Your task to perform on an android device: open app "Google News" (install if not already installed) Image 0: 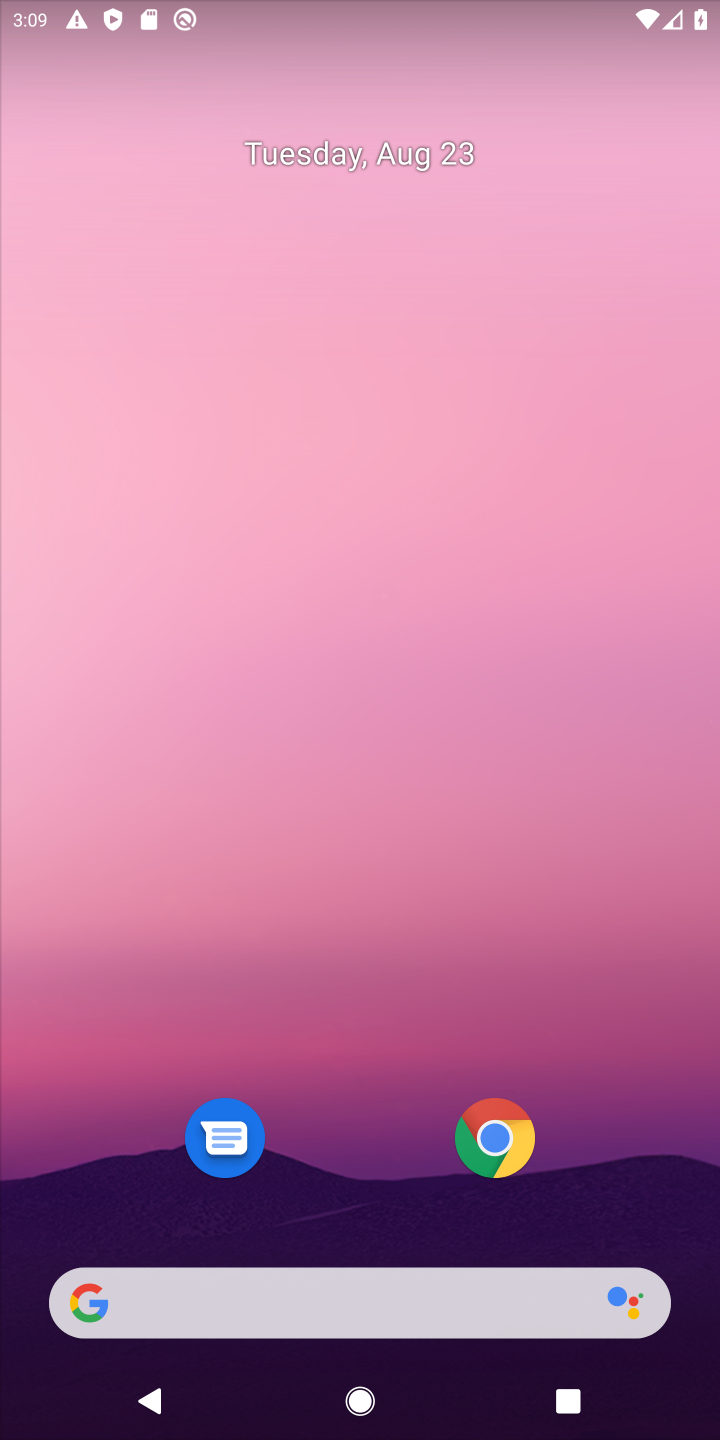
Step 0: drag from (383, 1330) to (531, 62)
Your task to perform on an android device: open app "Google News" (install if not already installed) Image 1: 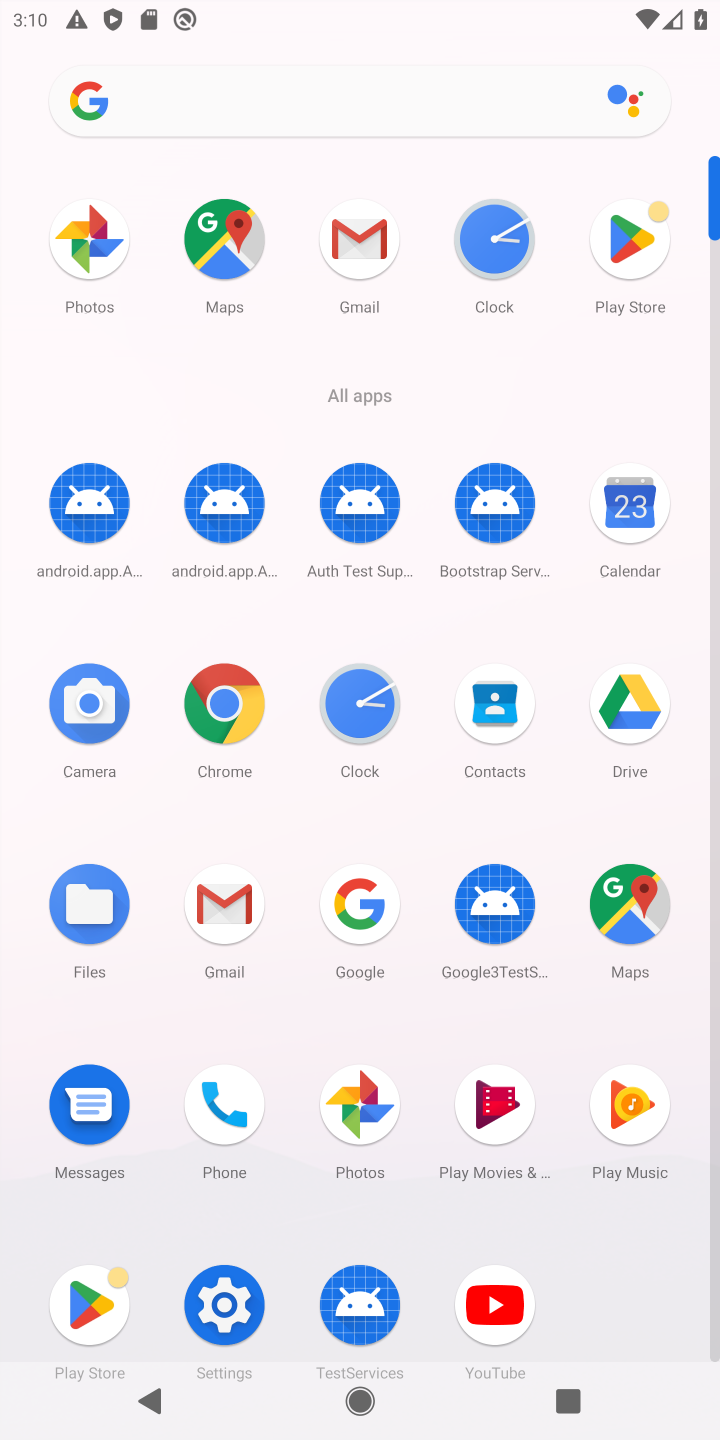
Step 1: click (625, 258)
Your task to perform on an android device: open app "Google News" (install if not already installed) Image 2: 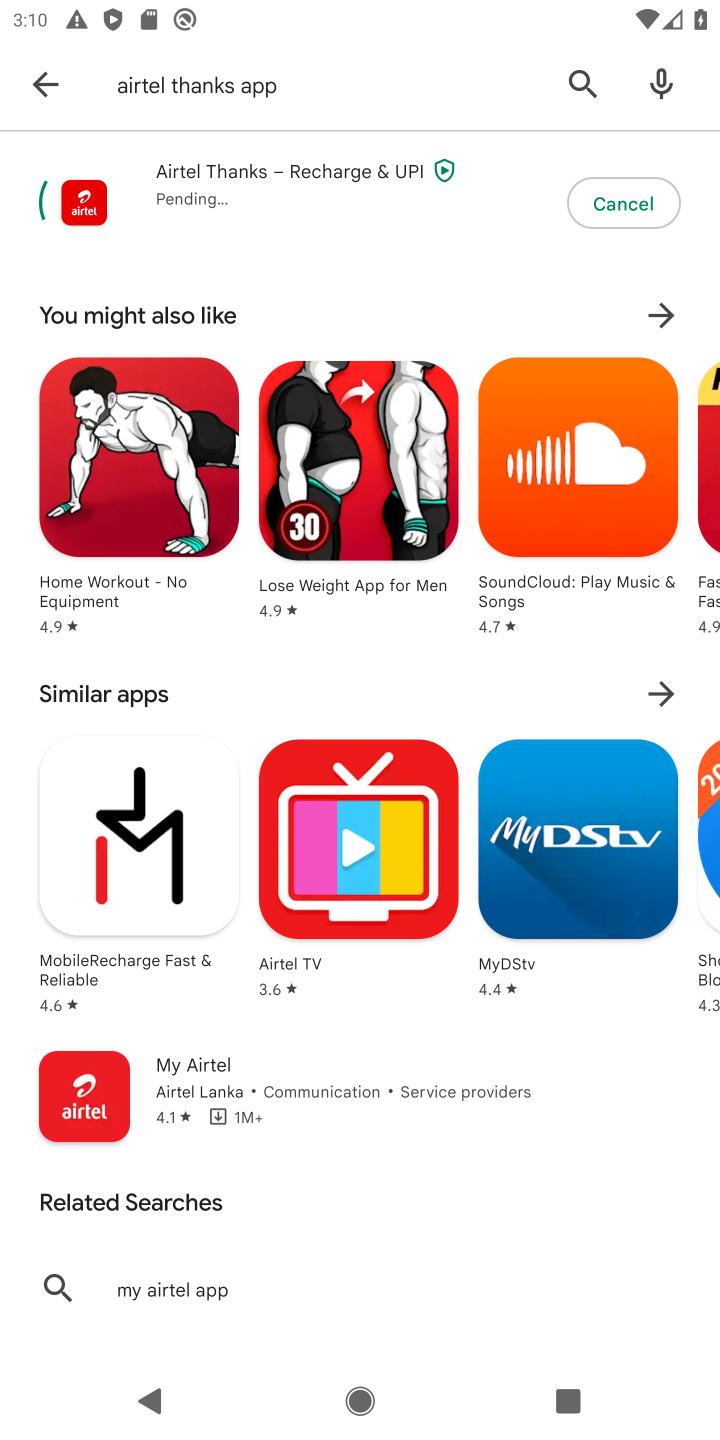
Step 2: press back button
Your task to perform on an android device: open app "Google News" (install if not already installed) Image 3: 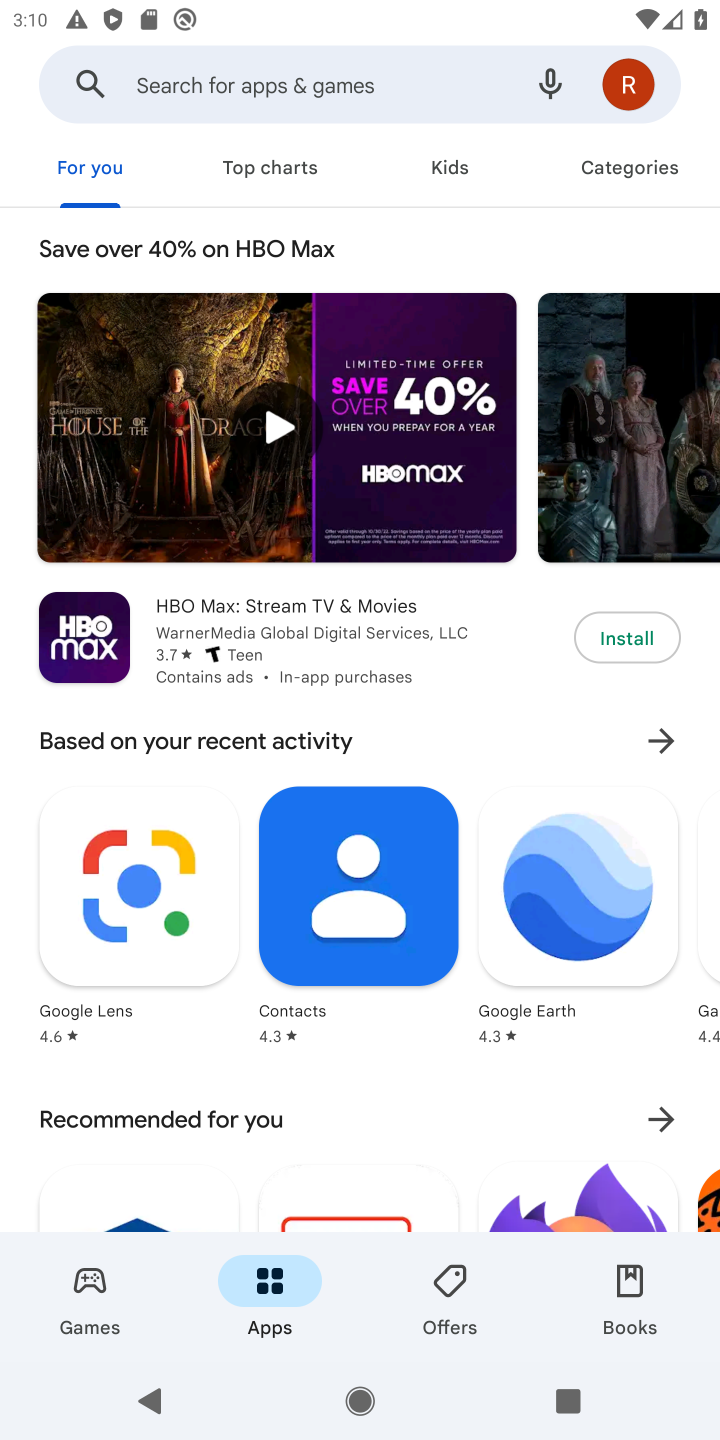
Step 3: click (356, 65)
Your task to perform on an android device: open app "Google News" (install if not already installed) Image 4: 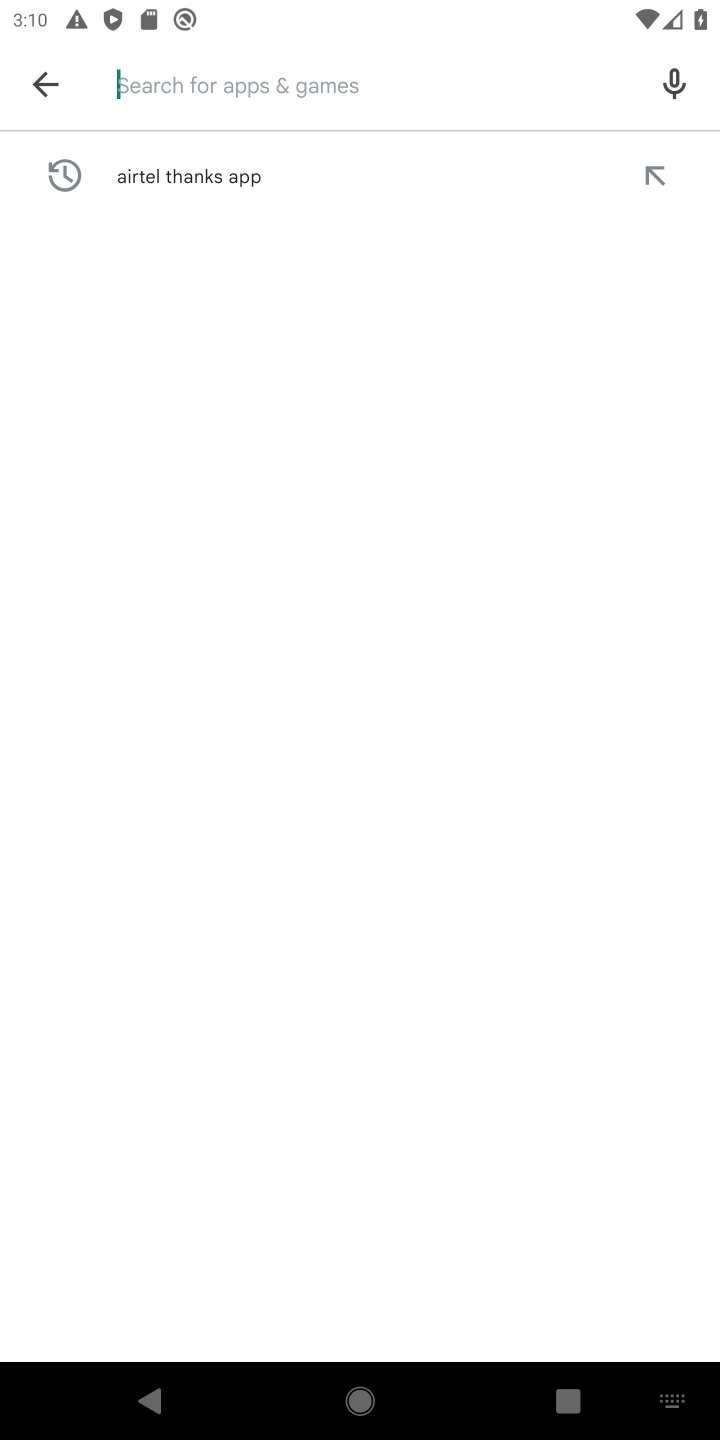
Step 4: type "Google News"
Your task to perform on an android device: open app "Google News" (install if not already installed) Image 5: 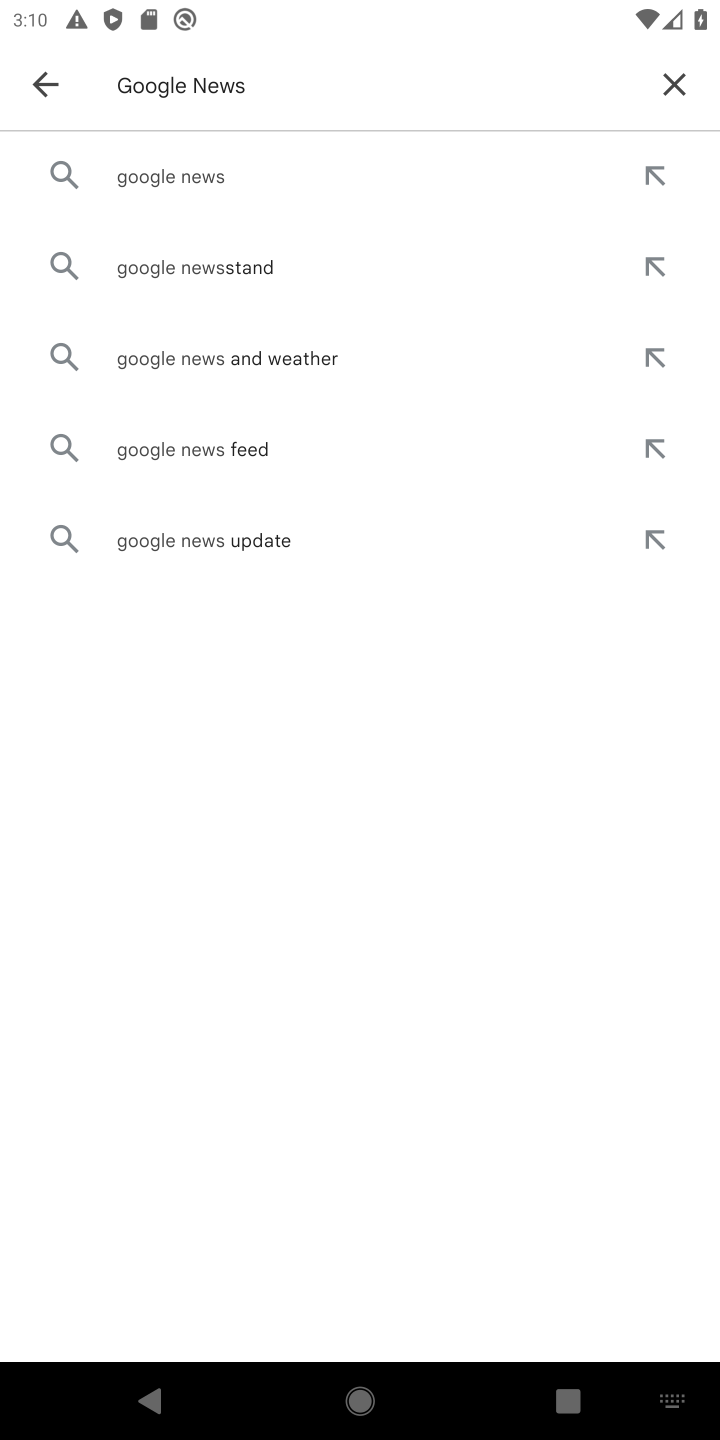
Step 5: click (149, 181)
Your task to perform on an android device: open app "Google News" (install if not already installed) Image 6: 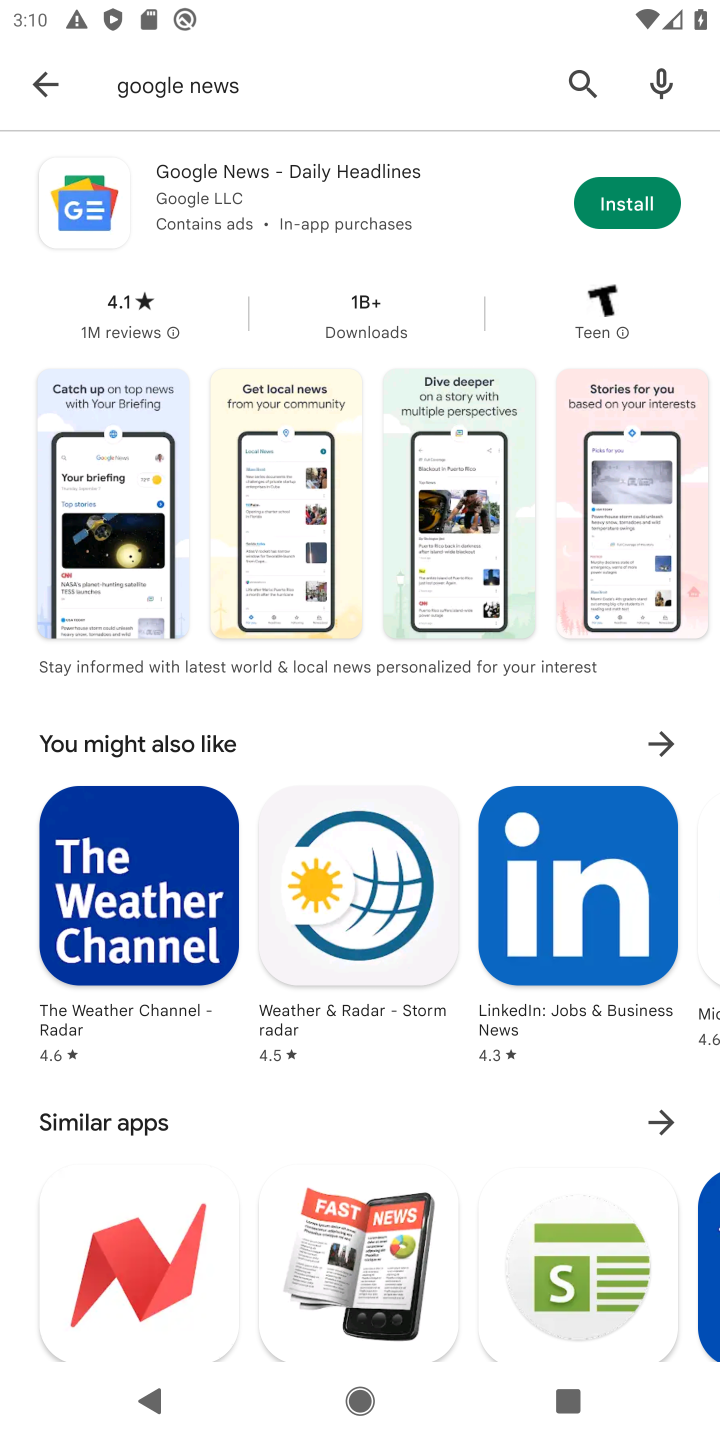
Step 6: click (637, 211)
Your task to perform on an android device: open app "Google News" (install if not already installed) Image 7: 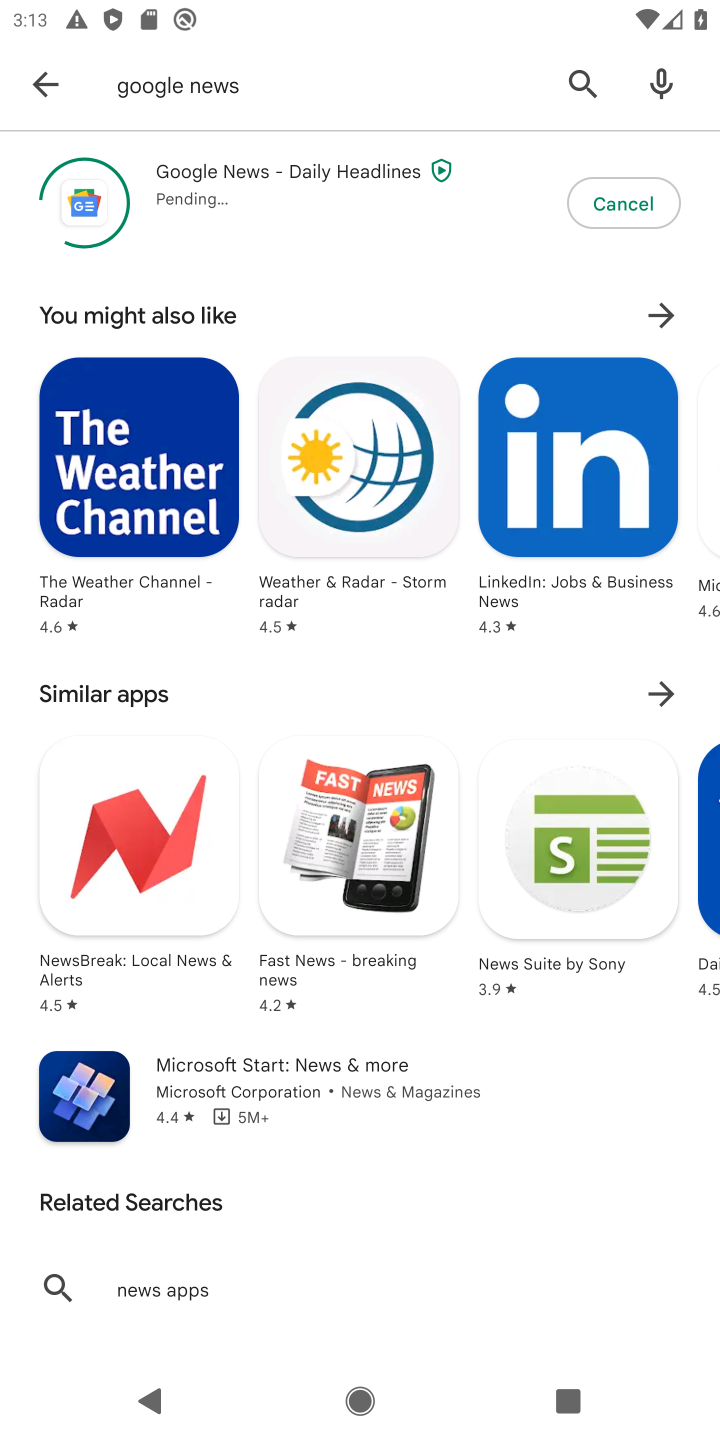
Step 7: task complete